Your task to perform on an android device: Go to display settings Image 0: 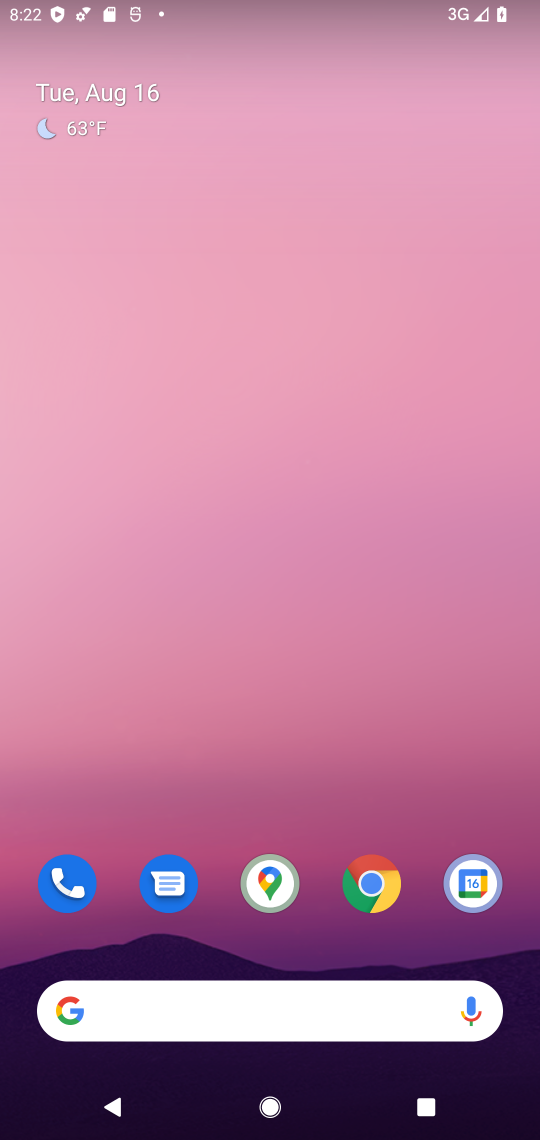
Step 0: drag from (346, 829) to (355, 271)
Your task to perform on an android device: Go to display settings Image 1: 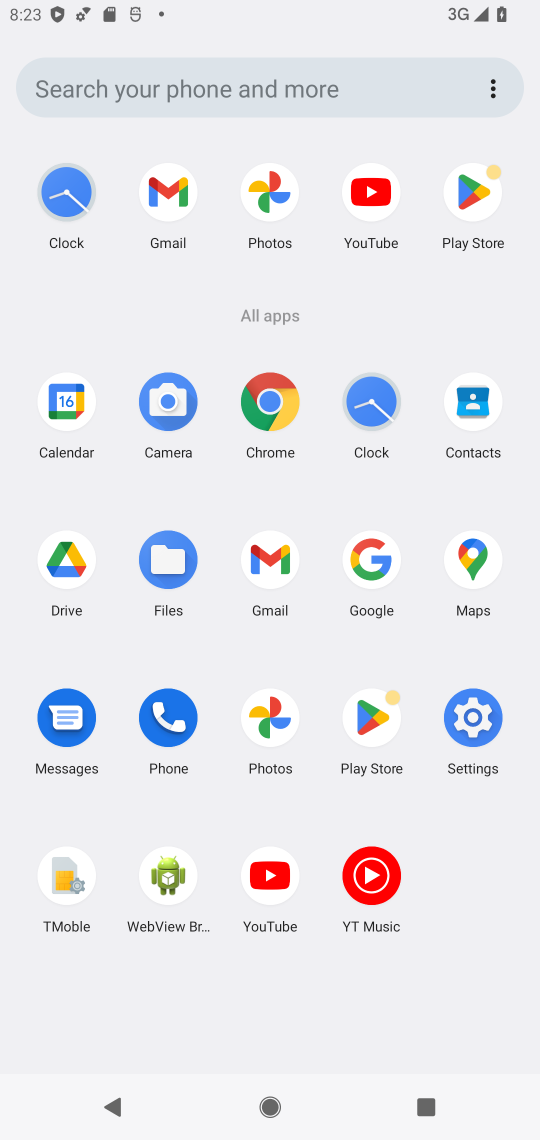
Step 1: click (493, 734)
Your task to perform on an android device: Go to display settings Image 2: 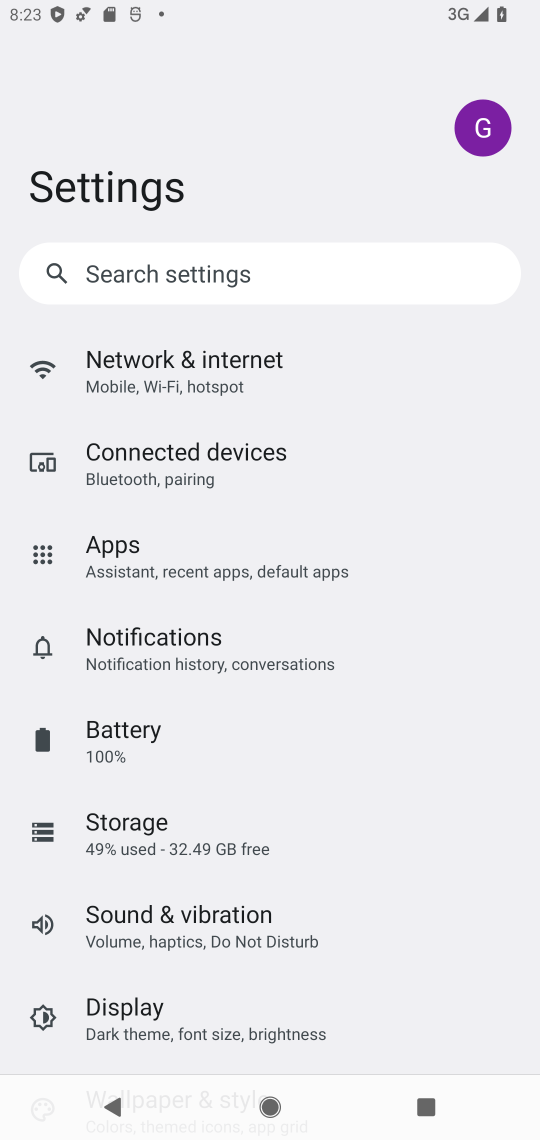
Step 2: click (163, 1008)
Your task to perform on an android device: Go to display settings Image 3: 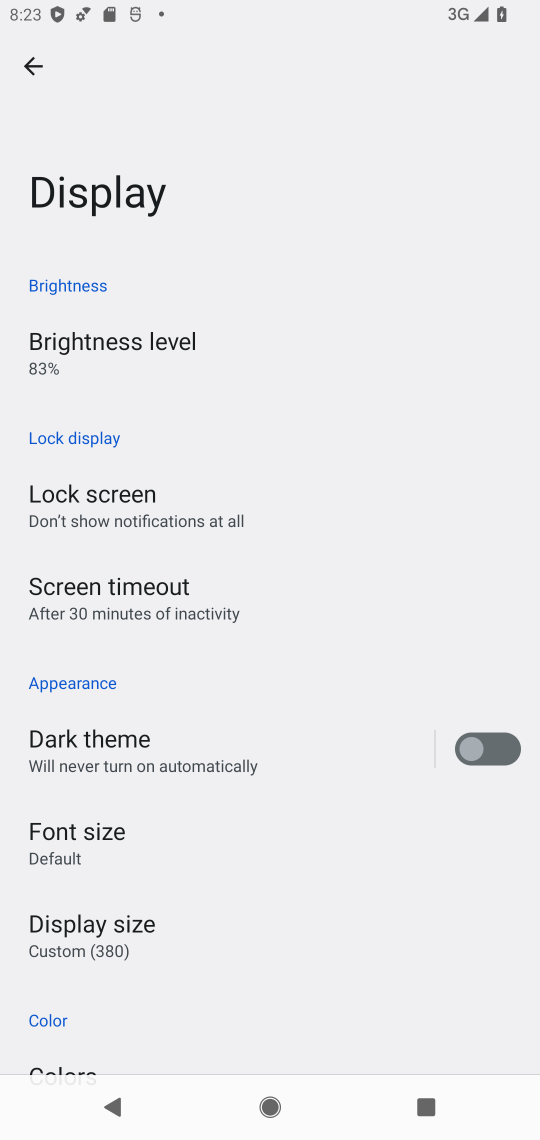
Step 3: task complete